Your task to perform on an android device: turn off improve location accuracy Image 0: 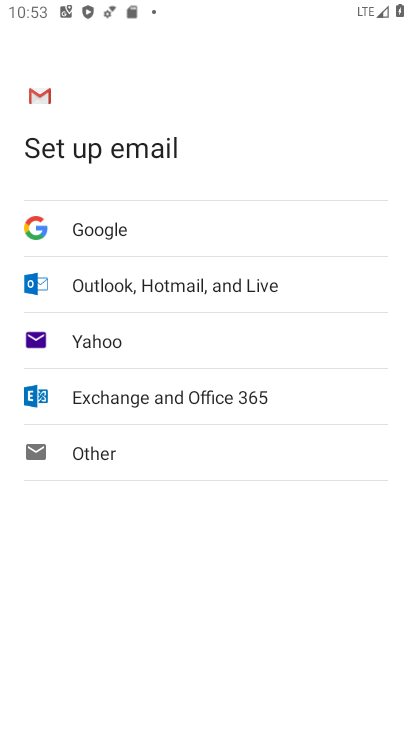
Step 0: press home button
Your task to perform on an android device: turn off improve location accuracy Image 1: 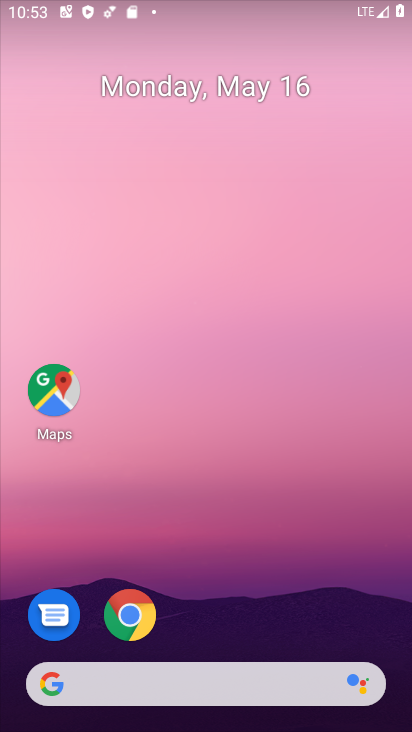
Step 1: drag from (245, 610) to (249, 267)
Your task to perform on an android device: turn off improve location accuracy Image 2: 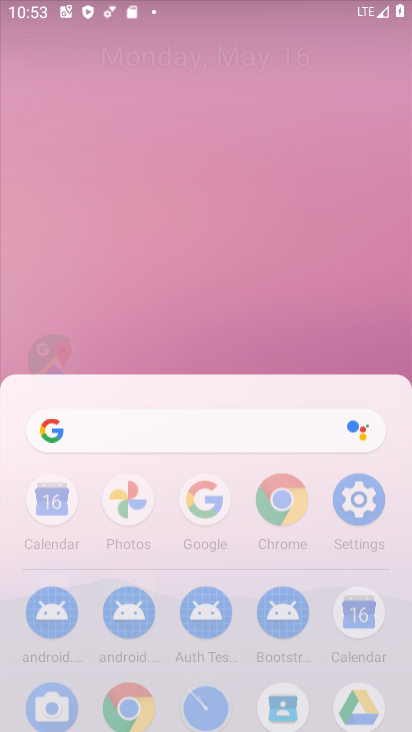
Step 2: click (250, 204)
Your task to perform on an android device: turn off improve location accuracy Image 3: 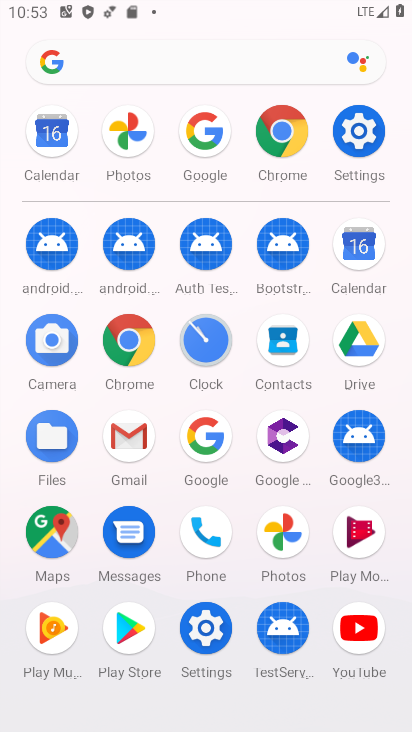
Step 3: click (352, 155)
Your task to perform on an android device: turn off improve location accuracy Image 4: 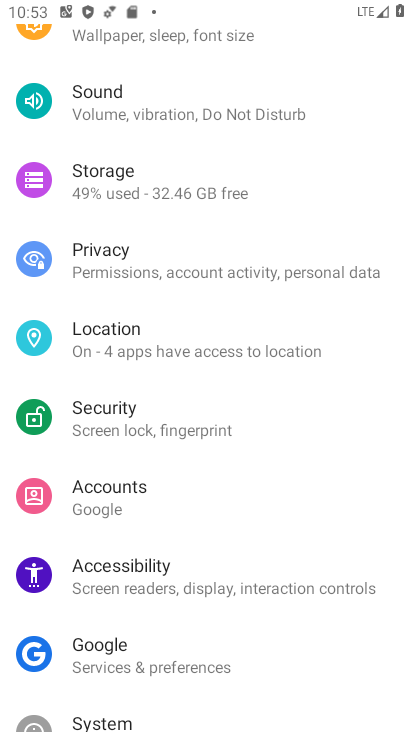
Step 4: click (219, 357)
Your task to perform on an android device: turn off improve location accuracy Image 5: 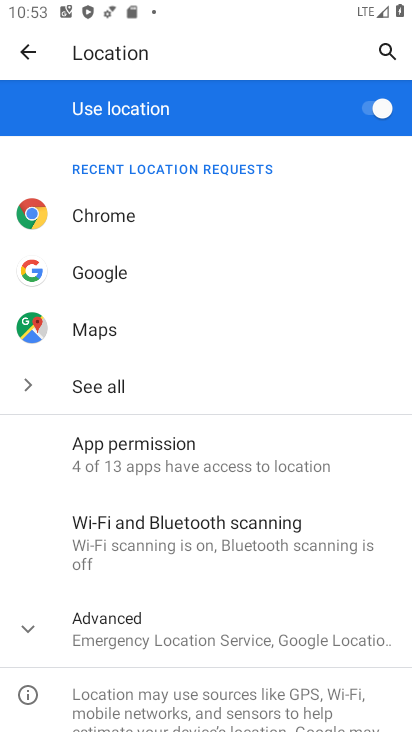
Step 5: click (172, 643)
Your task to perform on an android device: turn off improve location accuracy Image 6: 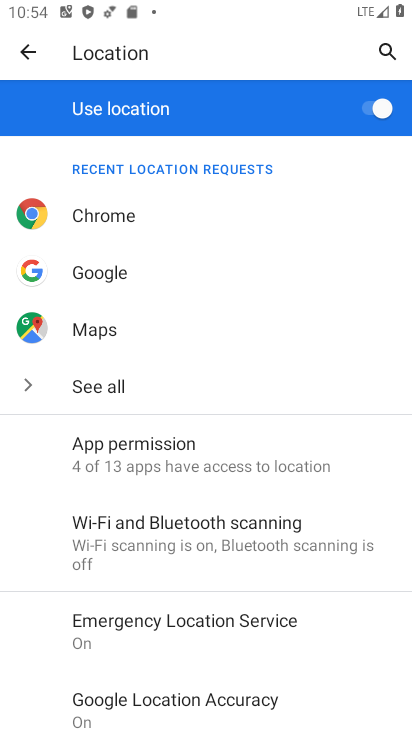
Step 6: click (215, 693)
Your task to perform on an android device: turn off improve location accuracy Image 7: 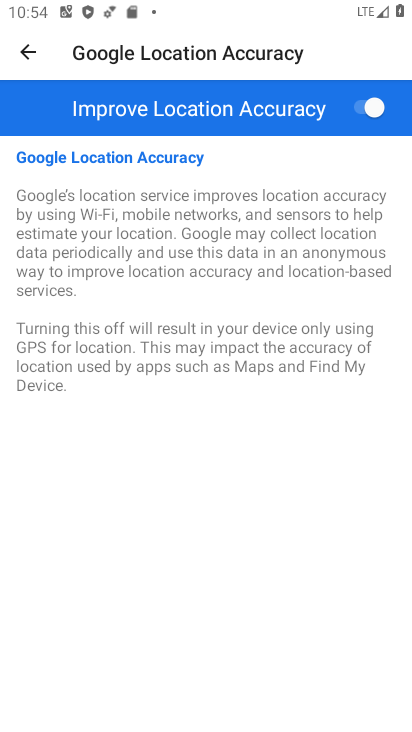
Step 7: click (356, 112)
Your task to perform on an android device: turn off improve location accuracy Image 8: 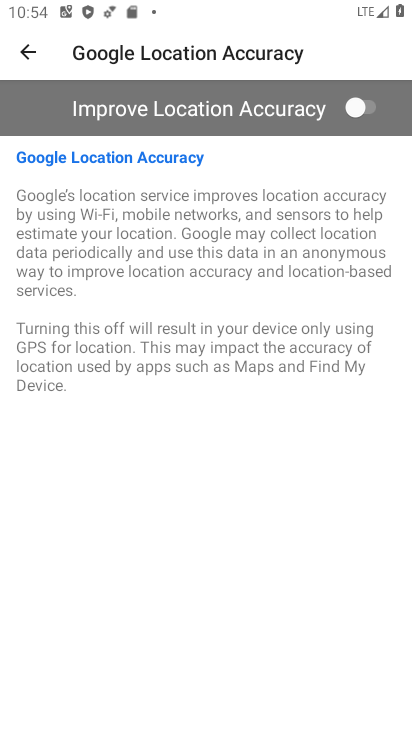
Step 8: task complete